Your task to perform on an android device: turn off picture-in-picture Image 0: 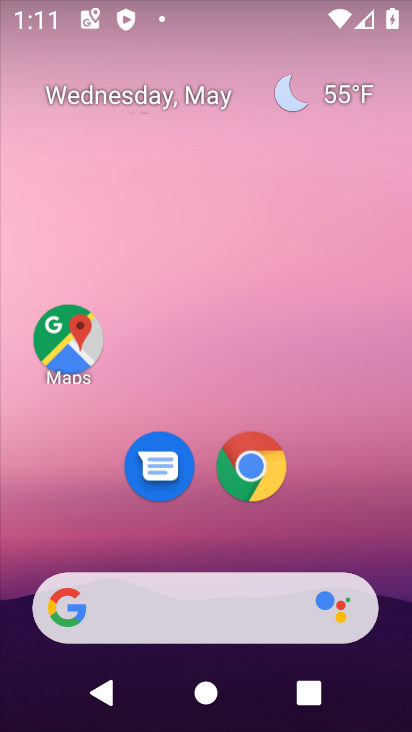
Step 0: click (248, 474)
Your task to perform on an android device: turn off picture-in-picture Image 1: 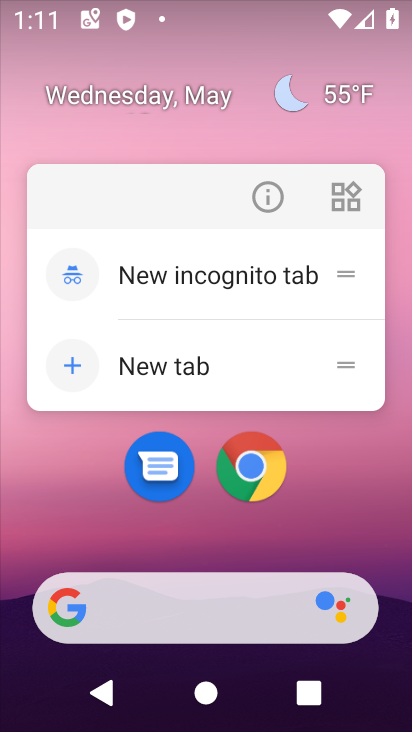
Step 1: click (257, 202)
Your task to perform on an android device: turn off picture-in-picture Image 2: 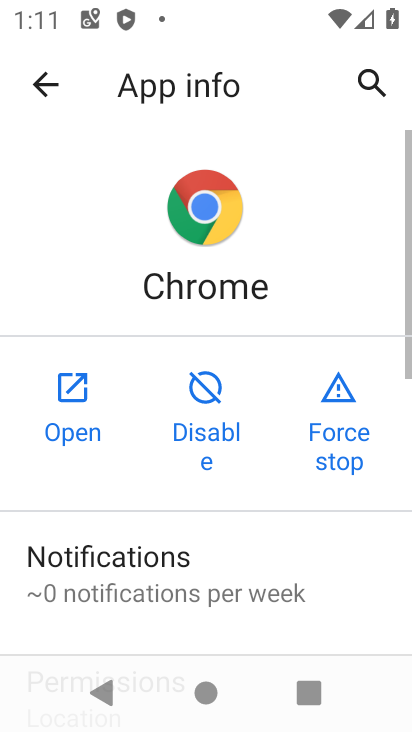
Step 2: drag from (208, 550) to (260, 96)
Your task to perform on an android device: turn off picture-in-picture Image 3: 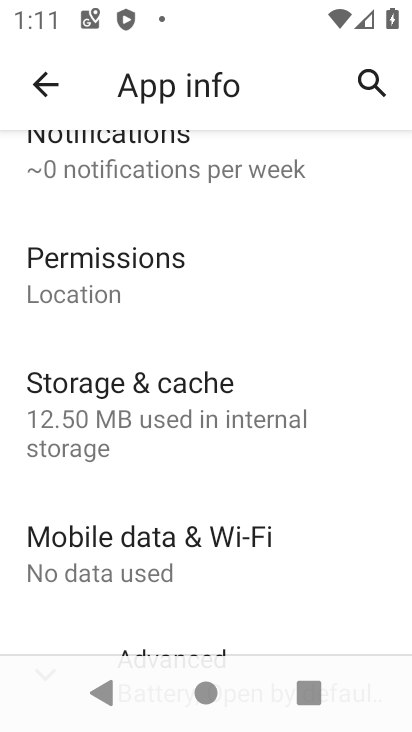
Step 3: drag from (174, 553) to (192, 201)
Your task to perform on an android device: turn off picture-in-picture Image 4: 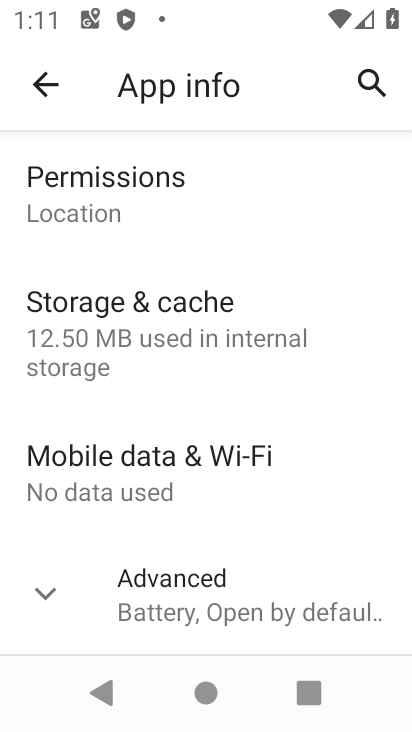
Step 4: click (191, 617)
Your task to perform on an android device: turn off picture-in-picture Image 5: 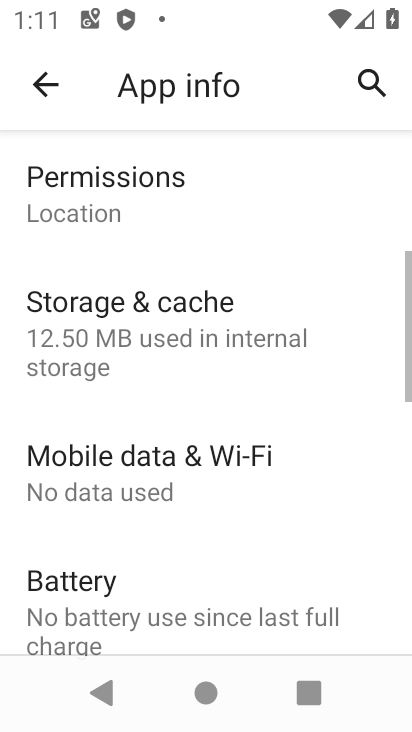
Step 5: drag from (205, 587) to (256, 246)
Your task to perform on an android device: turn off picture-in-picture Image 6: 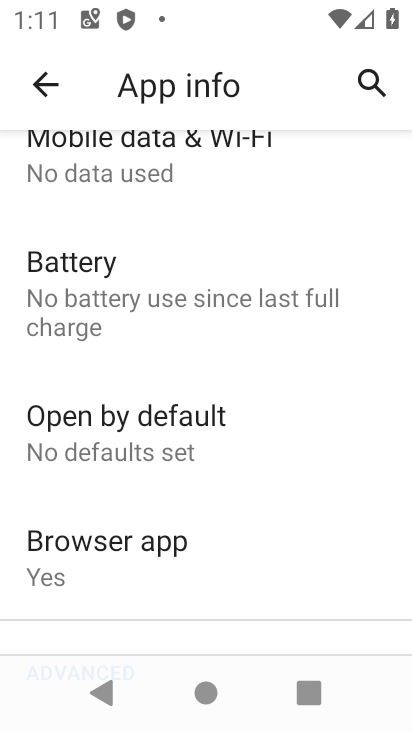
Step 6: drag from (219, 566) to (217, 220)
Your task to perform on an android device: turn off picture-in-picture Image 7: 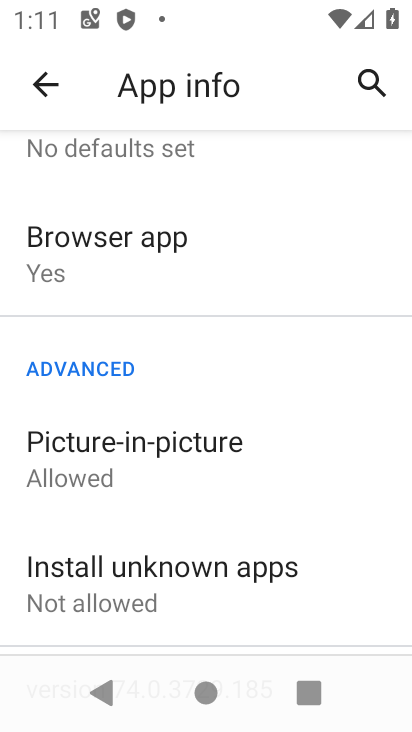
Step 7: click (139, 479)
Your task to perform on an android device: turn off picture-in-picture Image 8: 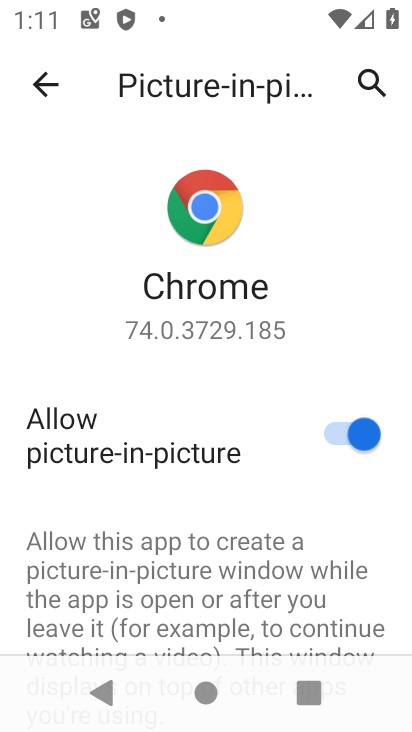
Step 8: click (364, 430)
Your task to perform on an android device: turn off picture-in-picture Image 9: 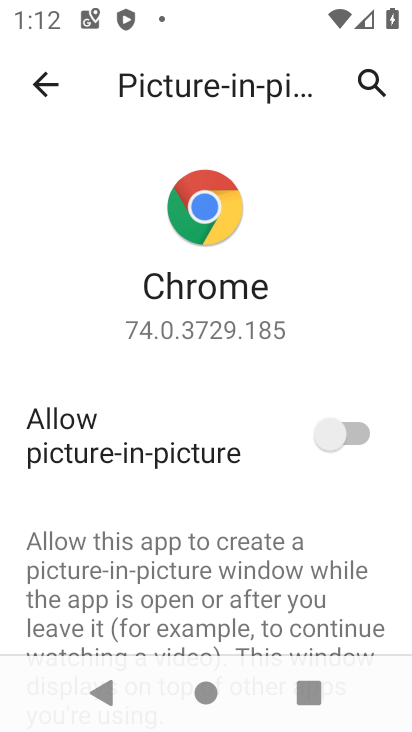
Step 9: task complete